Your task to perform on an android device: search for starred emails in the gmail app Image 0: 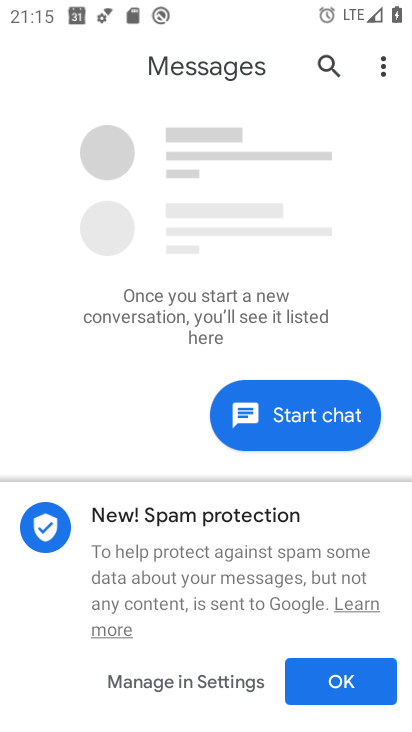
Step 0: press home button
Your task to perform on an android device: search for starred emails in the gmail app Image 1: 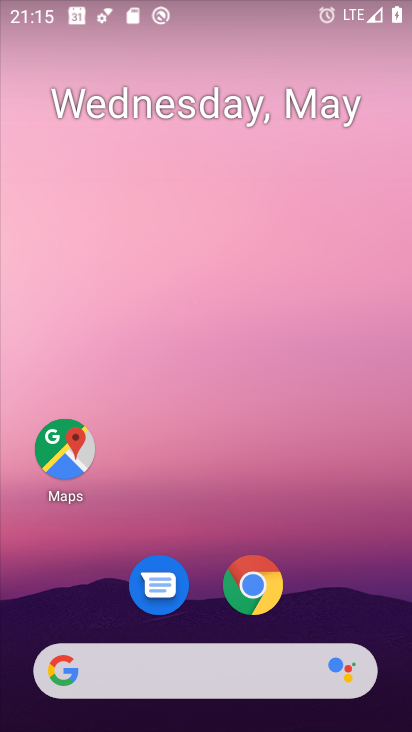
Step 1: drag from (317, 499) to (303, 130)
Your task to perform on an android device: search for starred emails in the gmail app Image 2: 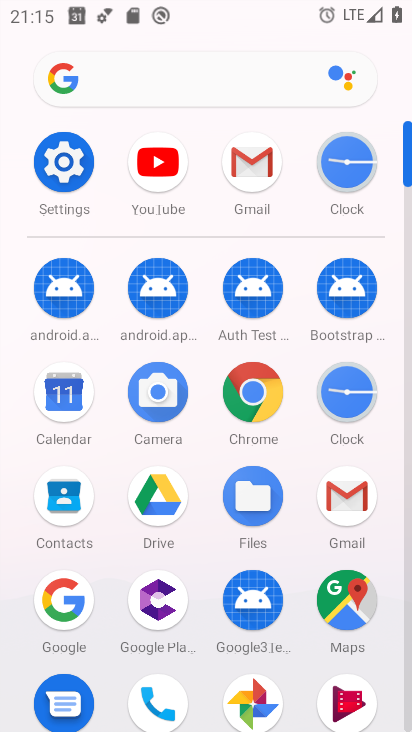
Step 2: click (262, 178)
Your task to perform on an android device: search for starred emails in the gmail app Image 3: 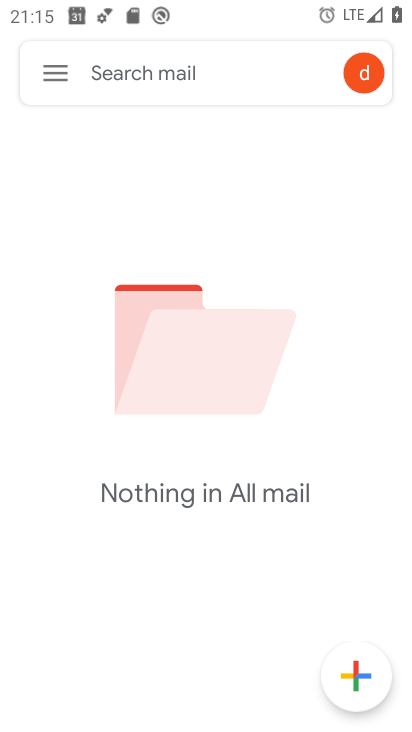
Step 3: click (53, 72)
Your task to perform on an android device: search for starred emails in the gmail app Image 4: 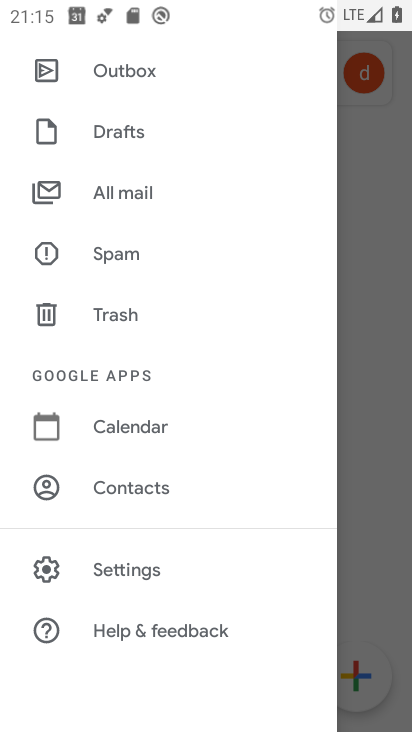
Step 4: drag from (204, 150) to (309, 578)
Your task to perform on an android device: search for starred emails in the gmail app Image 5: 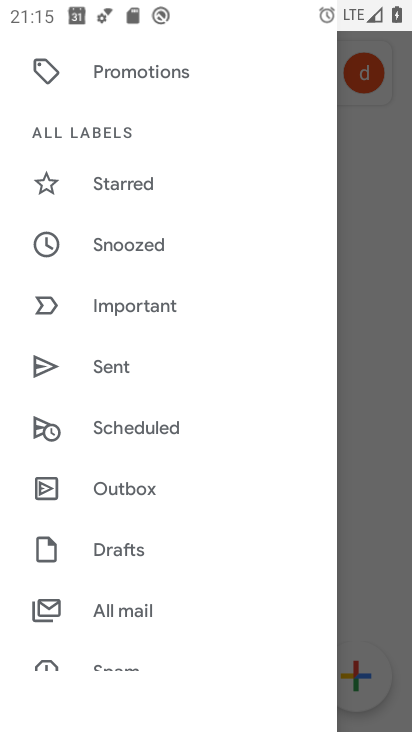
Step 5: click (156, 180)
Your task to perform on an android device: search for starred emails in the gmail app Image 6: 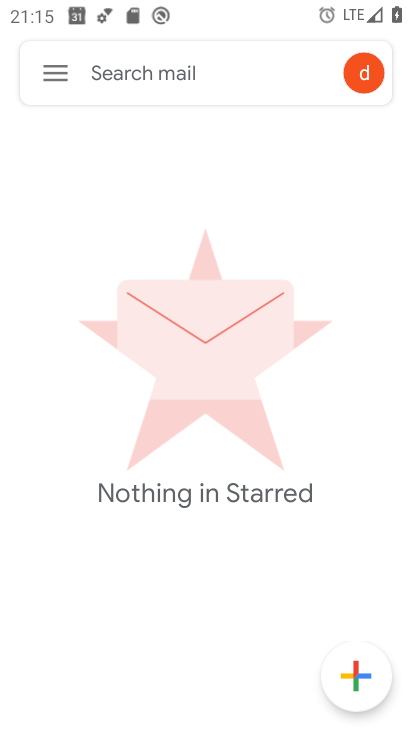
Step 6: task complete